Your task to perform on an android device: Show me popular videos on Youtube Image 0: 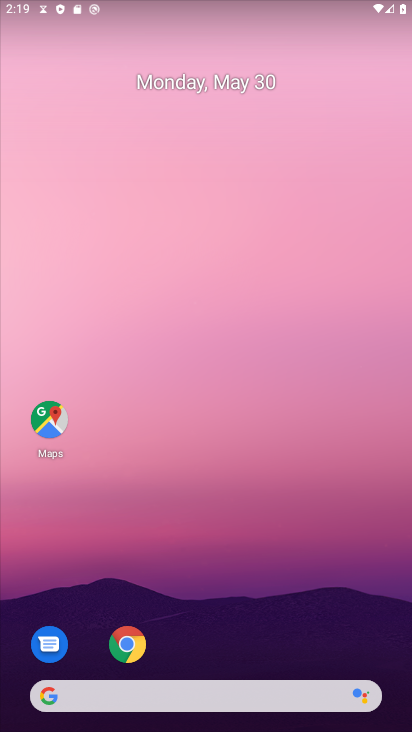
Step 0: drag from (300, 658) to (276, 106)
Your task to perform on an android device: Show me popular videos on Youtube Image 1: 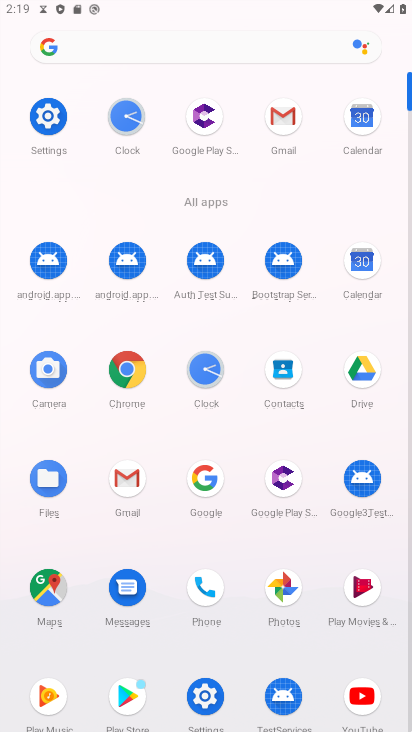
Step 1: click (360, 693)
Your task to perform on an android device: Show me popular videos on Youtube Image 2: 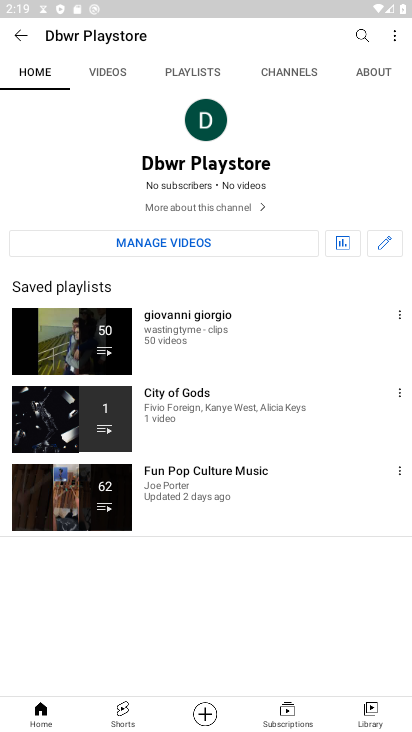
Step 2: press back button
Your task to perform on an android device: Show me popular videos on Youtube Image 3: 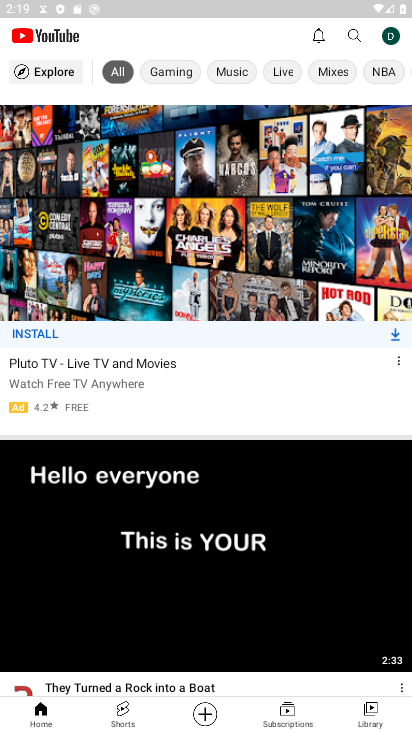
Step 3: click (55, 72)
Your task to perform on an android device: Show me popular videos on Youtube Image 4: 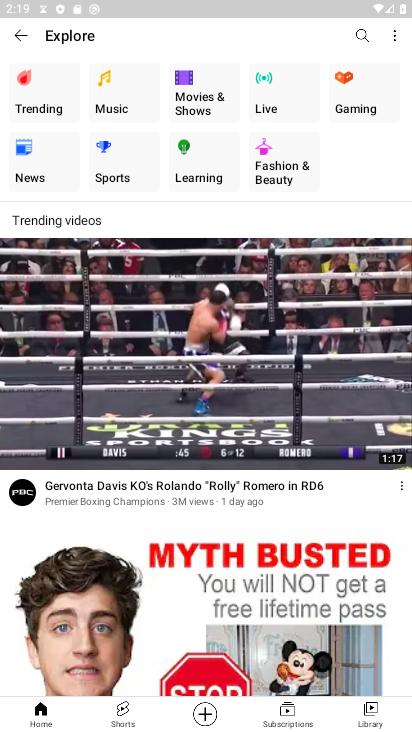
Step 4: click (22, 84)
Your task to perform on an android device: Show me popular videos on Youtube Image 5: 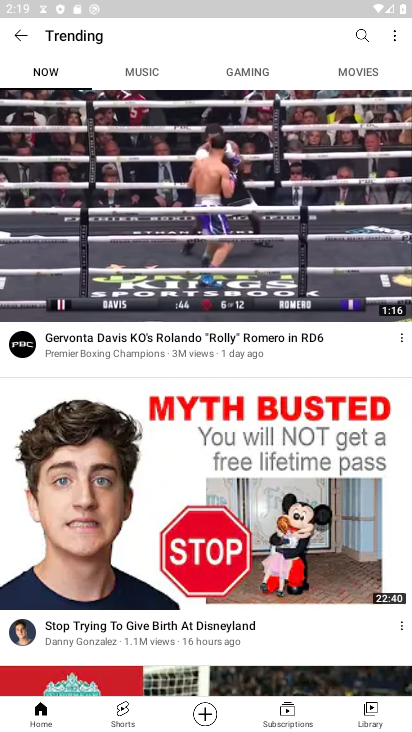
Step 5: task complete